Your task to perform on an android device: Open the calendar and show me this week's events Image 0: 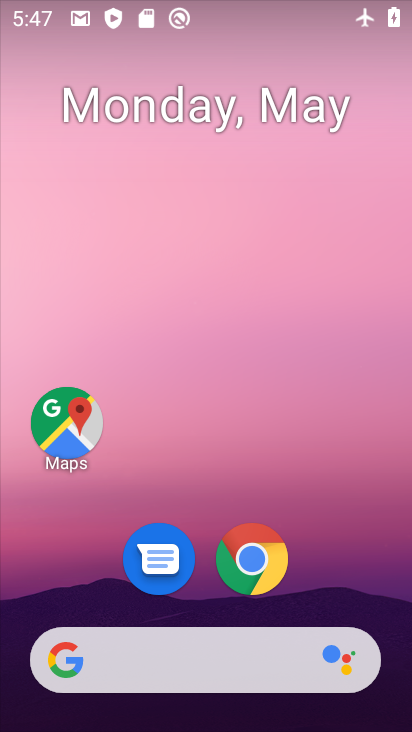
Step 0: drag from (341, 537) to (275, 10)
Your task to perform on an android device: Open the calendar and show me this week's events Image 1: 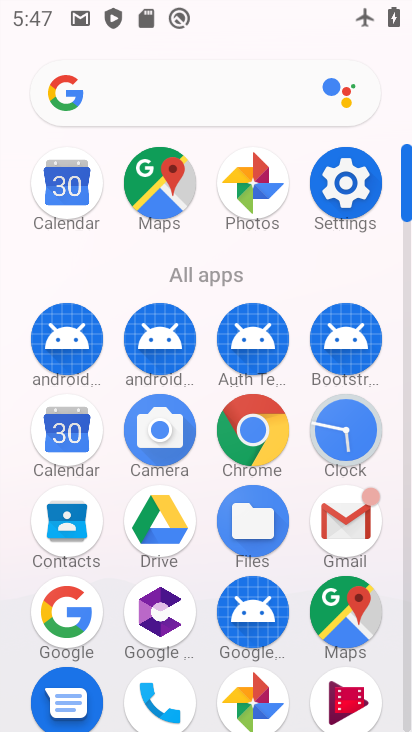
Step 1: click (68, 444)
Your task to perform on an android device: Open the calendar and show me this week's events Image 2: 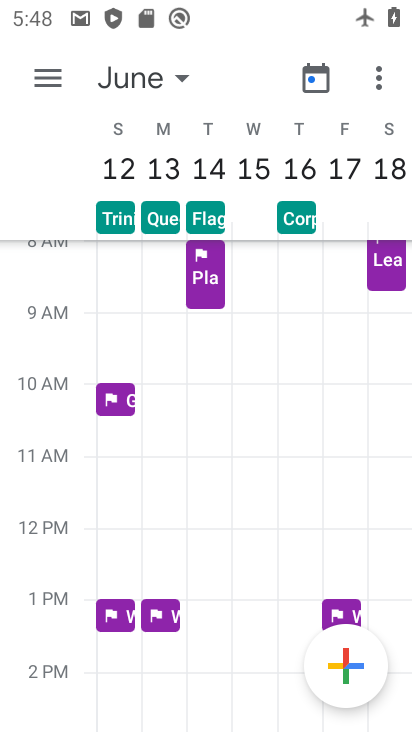
Step 2: click (183, 73)
Your task to perform on an android device: Open the calendar and show me this week's events Image 3: 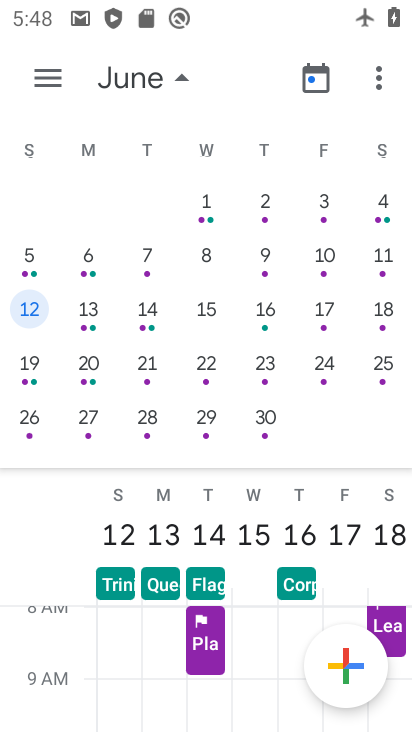
Step 3: drag from (34, 258) to (385, 264)
Your task to perform on an android device: Open the calendar and show me this week's events Image 4: 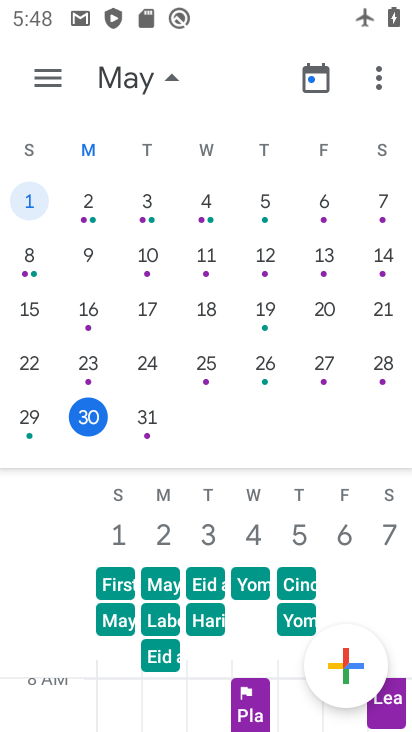
Step 4: click (87, 418)
Your task to perform on an android device: Open the calendar and show me this week's events Image 5: 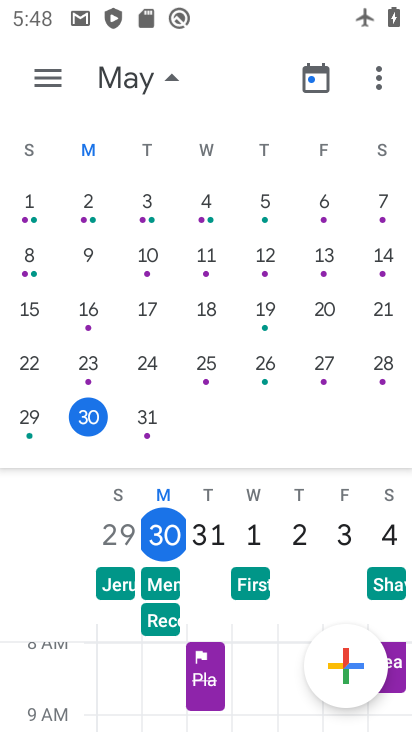
Step 5: task complete